Your task to perform on an android device: Open Chrome and go to settings Image 0: 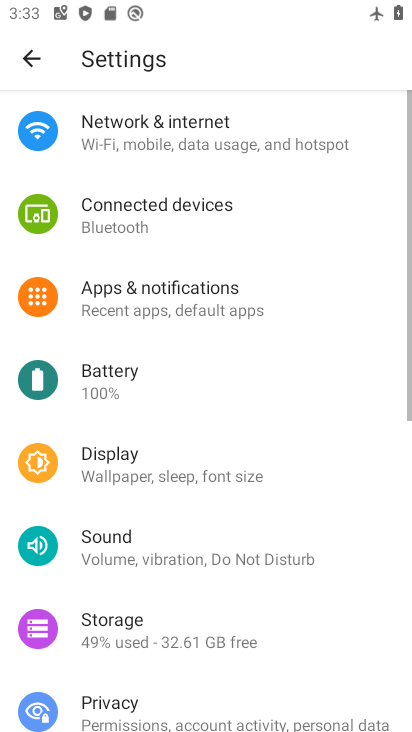
Step 0: drag from (222, 651) to (178, 291)
Your task to perform on an android device: Open Chrome and go to settings Image 1: 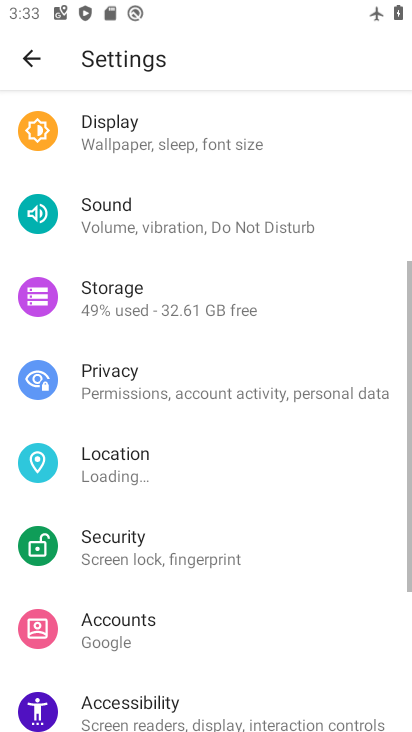
Step 1: press home button
Your task to perform on an android device: Open Chrome and go to settings Image 2: 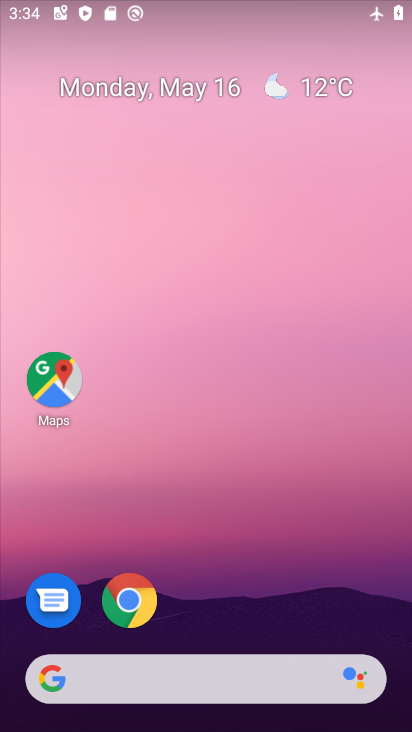
Step 2: click (127, 610)
Your task to perform on an android device: Open Chrome and go to settings Image 3: 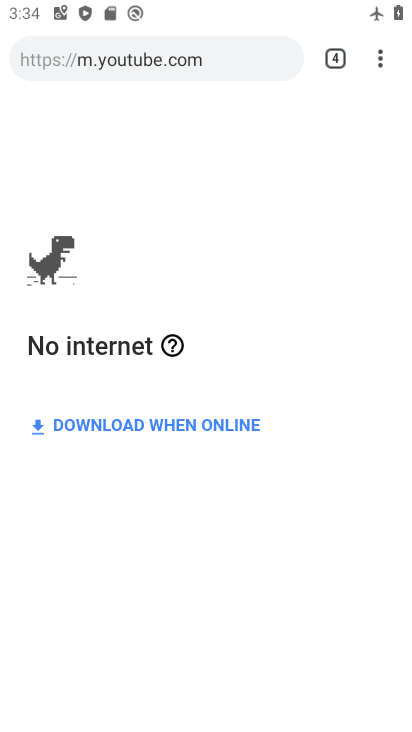
Step 3: click (383, 65)
Your task to perform on an android device: Open Chrome and go to settings Image 4: 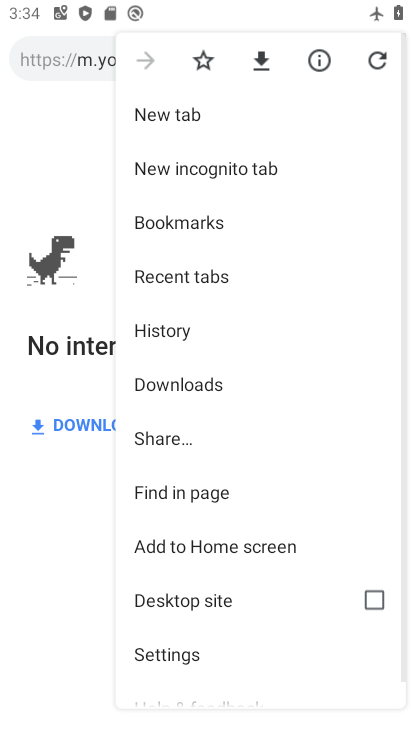
Step 4: click (191, 655)
Your task to perform on an android device: Open Chrome and go to settings Image 5: 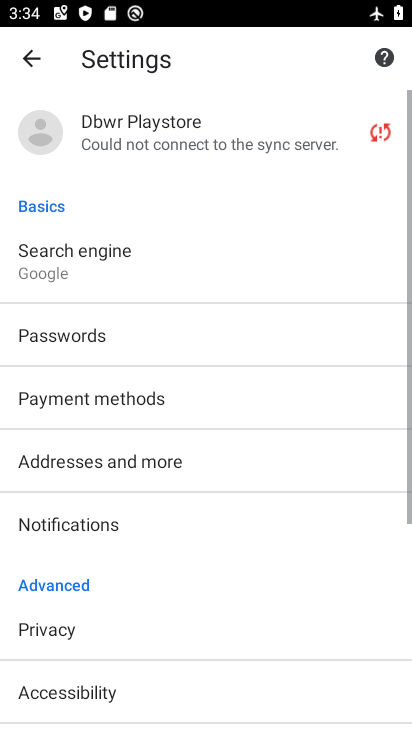
Step 5: task complete